Your task to perform on an android device: Open Youtube and go to "Your channel" Image 0: 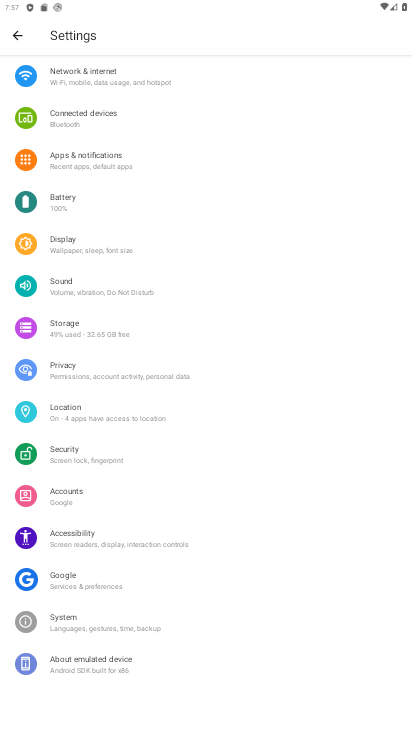
Step 0: press home button
Your task to perform on an android device: Open Youtube and go to "Your channel" Image 1: 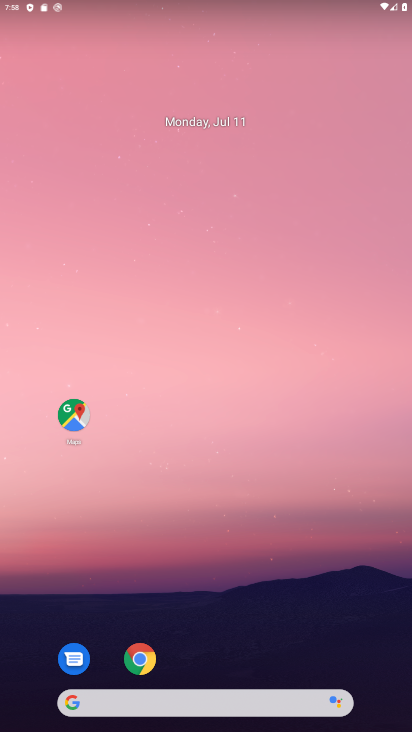
Step 1: drag from (91, 527) to (334, 38)
Your task to perform on an android device: Open Youtube and go to "Your channel" Image 2: 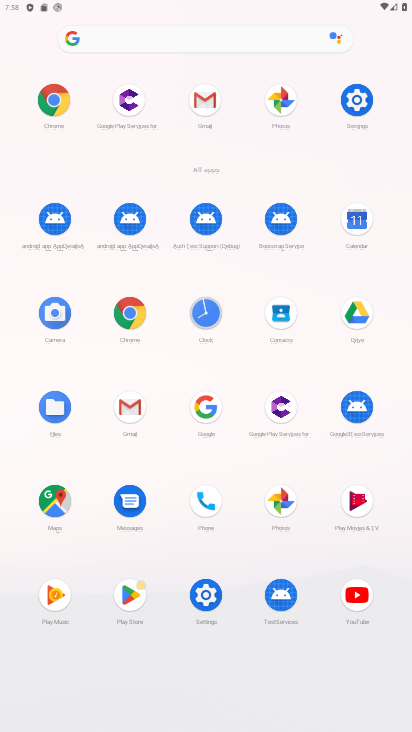
Step 2: click (340, 587)
Your task to perform on an android device: Open Youtube and go to "Your channel" Image 3: 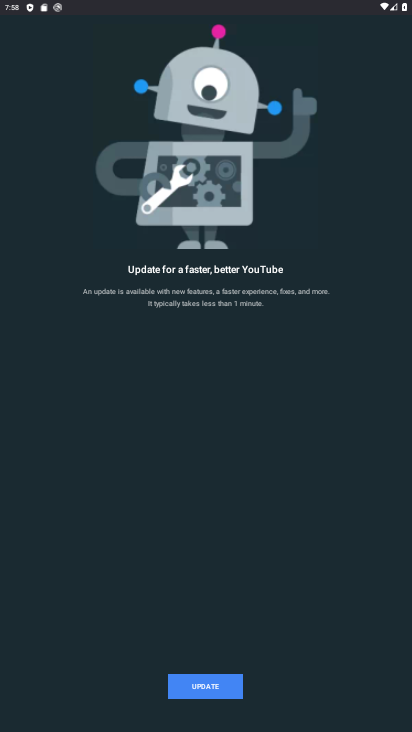
Step 3: click (211, 688)
Your task to perform on an android device: Open Youtube and go to "Your channel" Image 4: 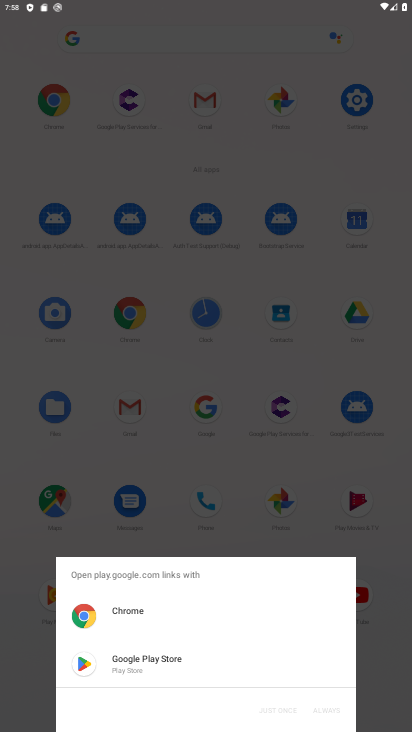
Step 4: click (129, 667)
Your task to perform on an android device: Open Youtube and go to "Your channel" Image 5: 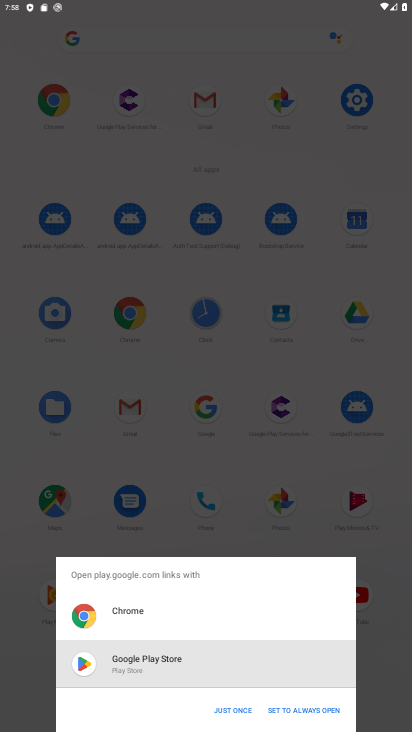
Step 5: click (237, 708)
Your task to perform on an android device: Open Youtube and go to "Your channel" Image 6: 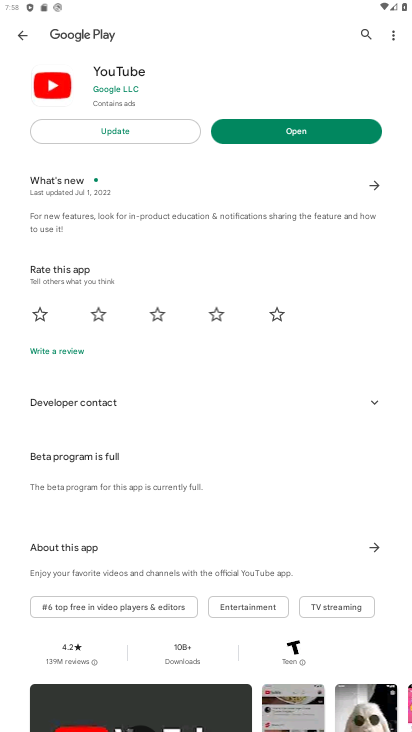
Step 6: click (268, 129)
Your task to perform on an android device: Open Youtube and go to "Your channel" Image 7: 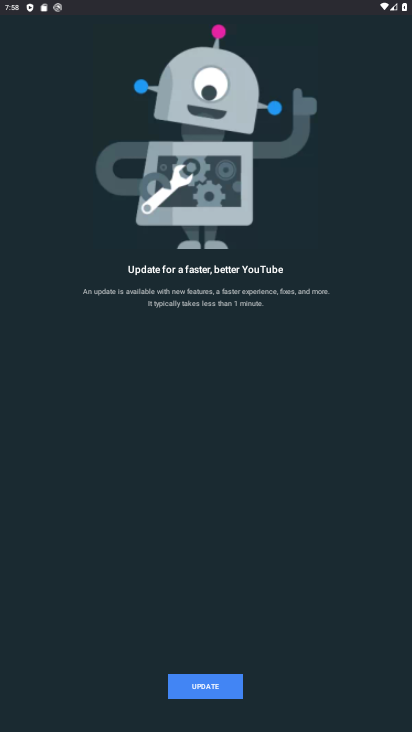
Step 7: task complete